Your task to perform on an android device: Open settings Image 0: 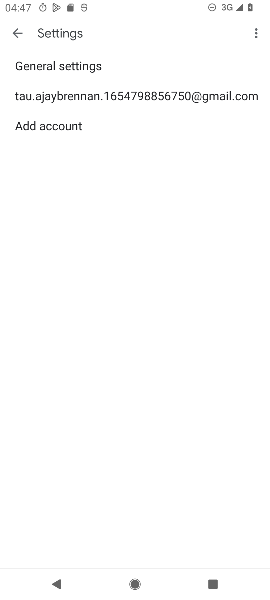
Step 0: press home button
Your task to perform on an android device: Open settings Image 1: 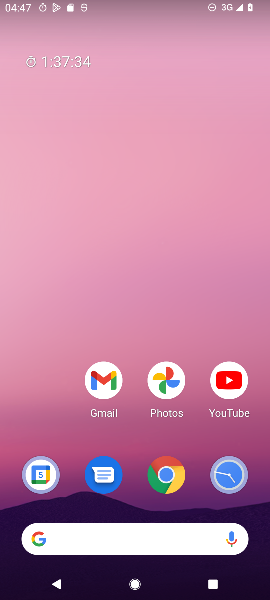
Step 1: drag from (63, 435) to (66, 198)
Your task to perform on an android device: Open settings Image 2: 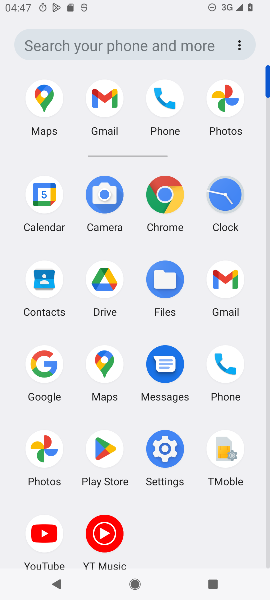
Step 2: click (164, 450)
Your task to perform on an android device: Open settings Image 3: 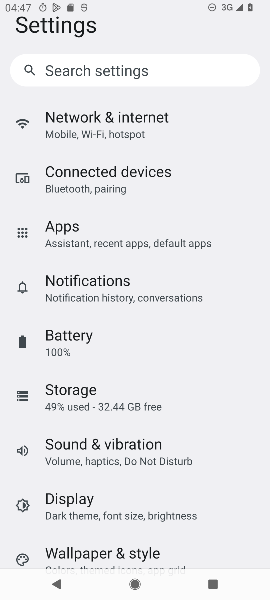
Step 3: task complete